Your task to perform on an android device: change your default location settings in chrome Image 0: 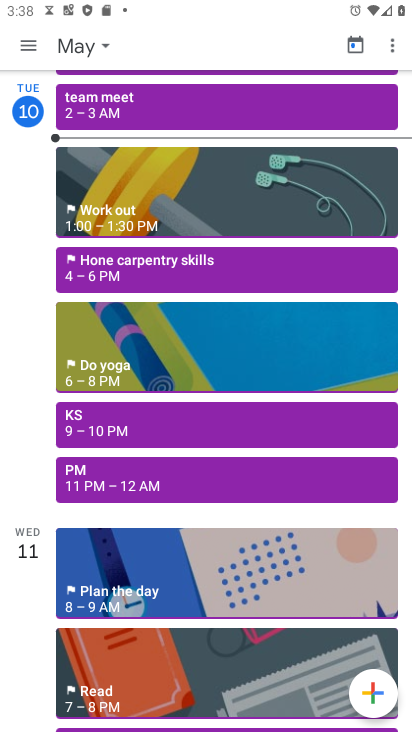
Step 0: press home button
Your task to perform on an android device: change your default location settings in chrome Image 1: 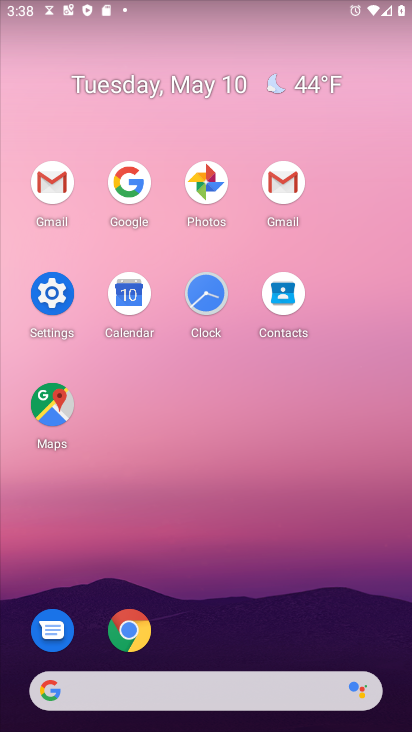
Step 1: click (130, 632)
Your task to perform on an android device: change your default location settings in chrome Image 2: 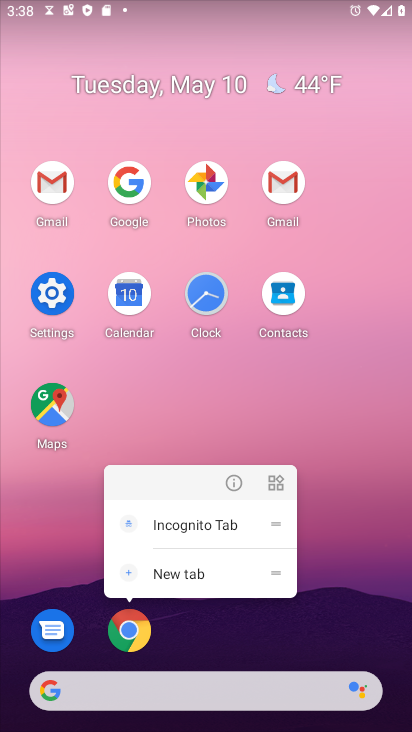
Step 2: click (151, 618)
Your task to perform on an android device: change your default location settings in chrome Image 3: 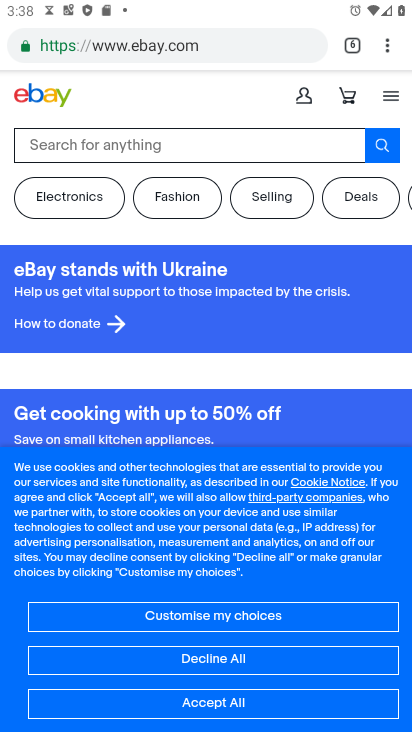
Step 3: click (388, 41)
Your task to perform on an android device: change your default location settings in chrome Image 4: 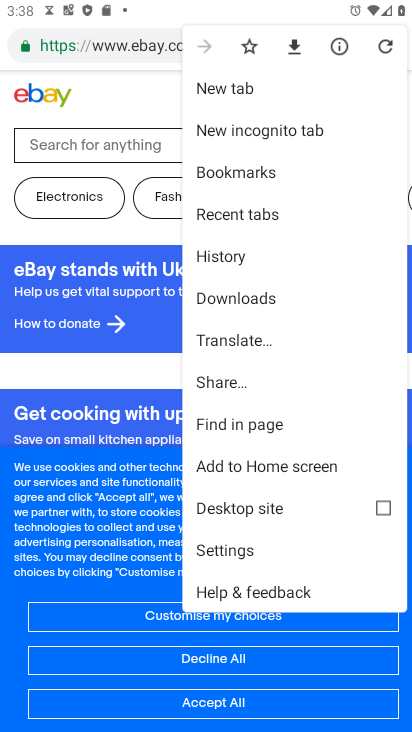
Step 4: click (257, 537)
Your task to perform on an android device: change your default location settings in chrome Image 5: 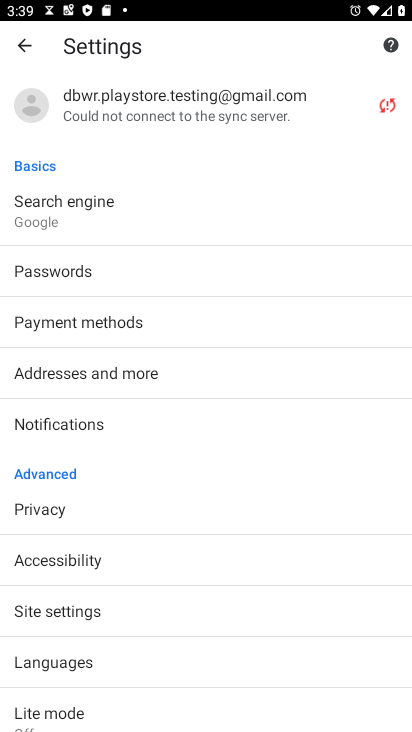
Step 5: click (191, 615)
Your task to perform on an android device: change your default location settings in chrome Image 6: 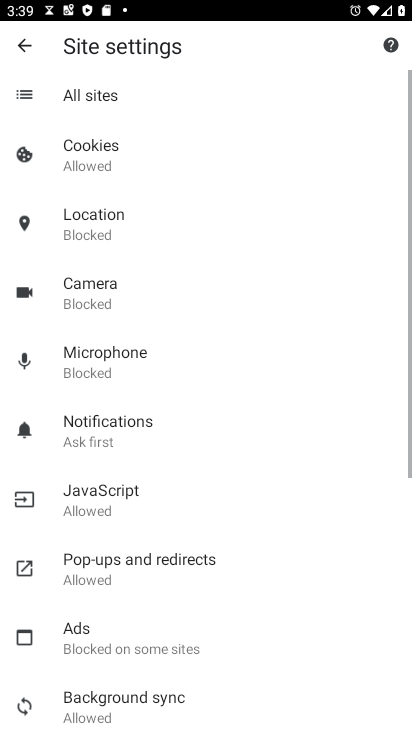
Step 6: click (212, 229)
Your task to perform on an android device: change your default location settings in chrome Image 7: 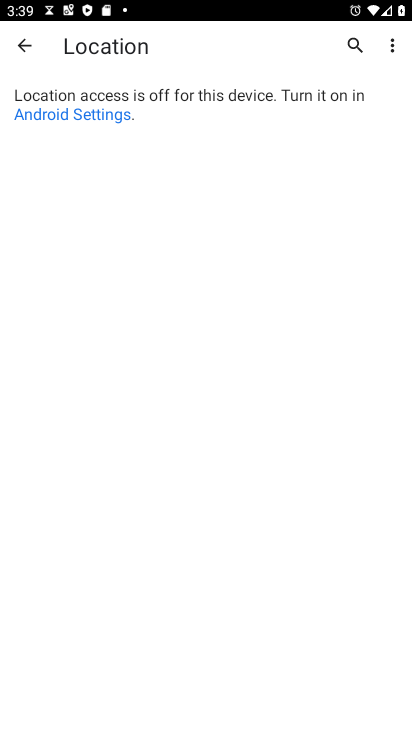
Step 7: click (106, 117)
Your task to perform on an android device: change your default location settings in chrome Image 8: 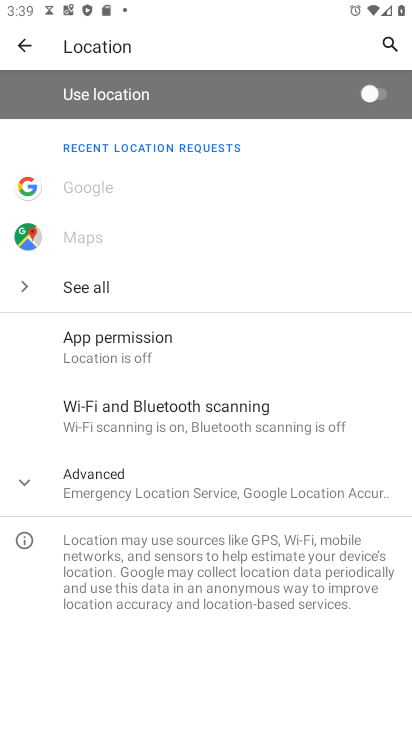
Step 8: click (366, 93)
Your task to perform on an android device: change your default location settings in chrome Image 9: 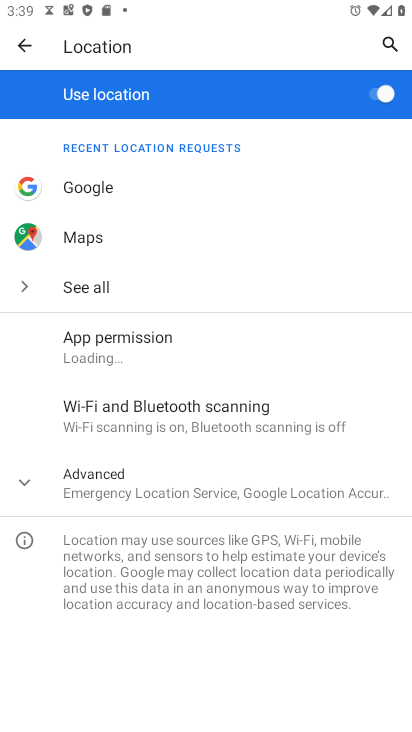
Step 9: task complete